Your task to perform on an android device: install app "Spotify: Music and Podcasts" Image 0: 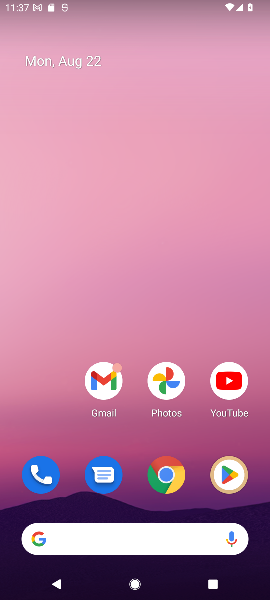
Step 0: click (232, 477)
Your task to perform on an android device: install app "Spotify: Music and Podcasts" Image 1: 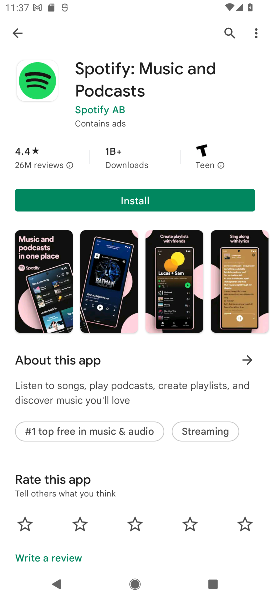
Step 1: click (16, 29)
Your task to perform on an android device: install app "Spotify: Music and Podcasts" Image 2: 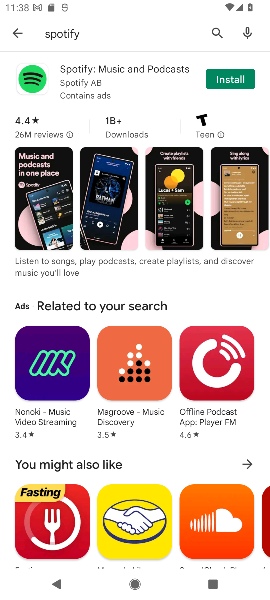
Step 2: click (15, 29)
Your task to perform on an android device: install app "Spotify: Music and Podcasts" Image 3: 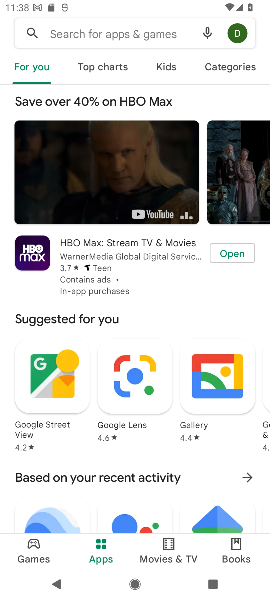
Step 3: click (115, 34)
Your task to perform on an android device: install app "Spotify: Music and Podcasts" Image 4: 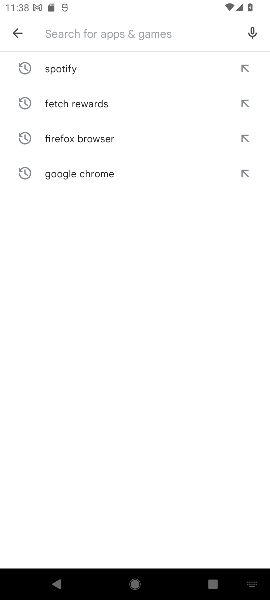
Step 4: type "Spotify: Music and Podcasts"
Your task to perform on an android device: install app "Spotify: Music and Podcasts" Image 5: 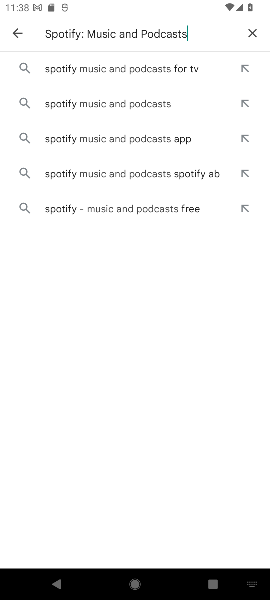
Step 5: click (108, 71)
Your task to perform on an android device: install app "Spotify: Music and Podcasts" Image 6: 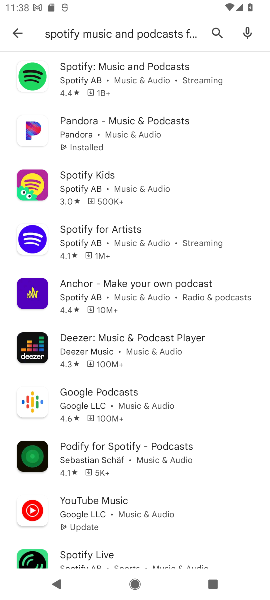
Step 6: click (93, 71)
Your task to perform on an android device: install app "Spotify: Music and Podcasts" Image 7: 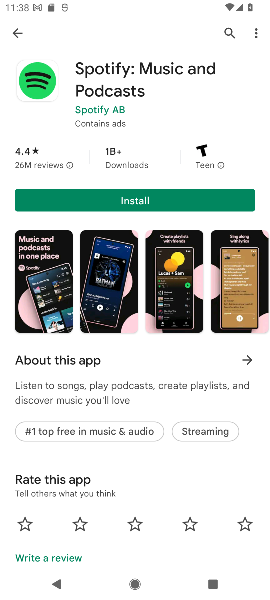
Step 7: click (136, 194)
Your task to perform on an android device: install app "Spotify: Music and Podcasts" Image 8: 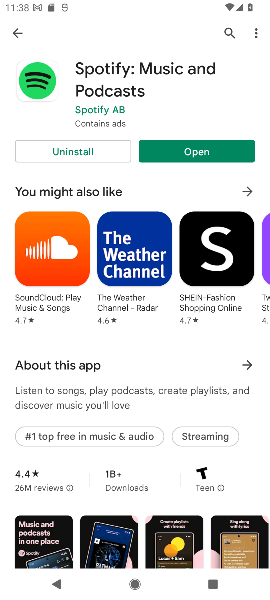
Step 8: click (189, 155)
Your task to perform on an android device: install app "Spotify: Music and Podcasts" Image 9: 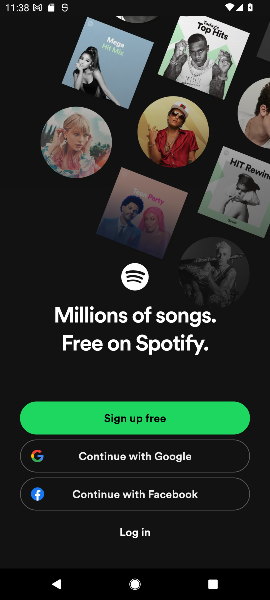
Step 9: task complete